Your task to perform on an android device: Go to internet settings Image 0: 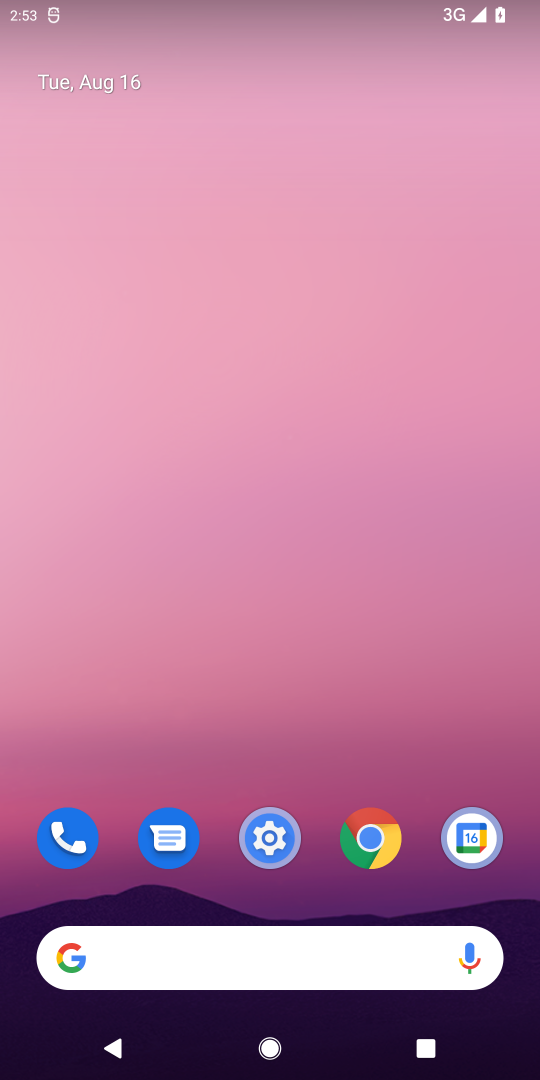
Step 0: press home button
Your task to perform on an android device: Go to internet settings Image 1: 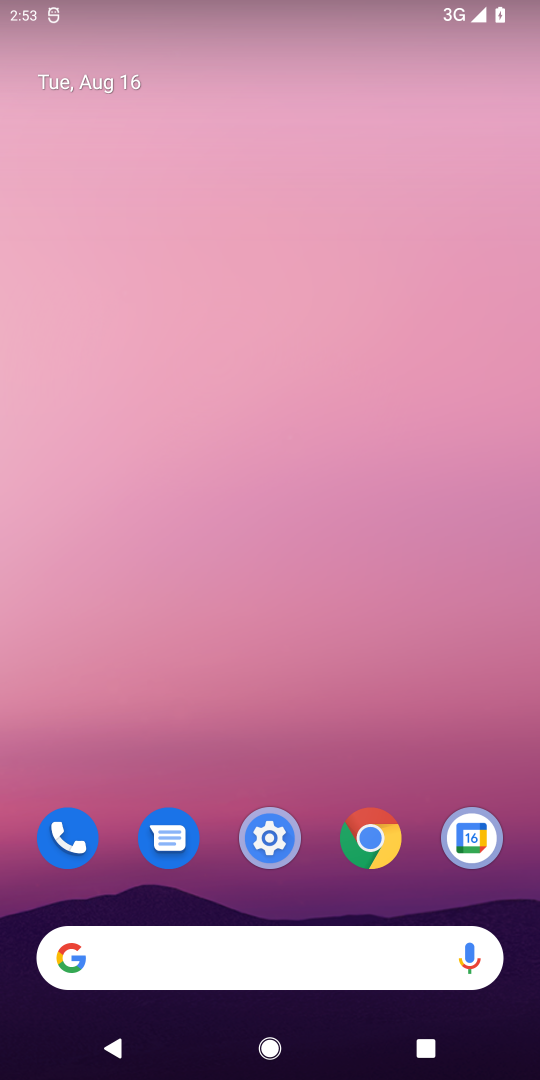
Step 1: click (275, 849)
Your task to perform on an android device: Go to internet settings Image 2: 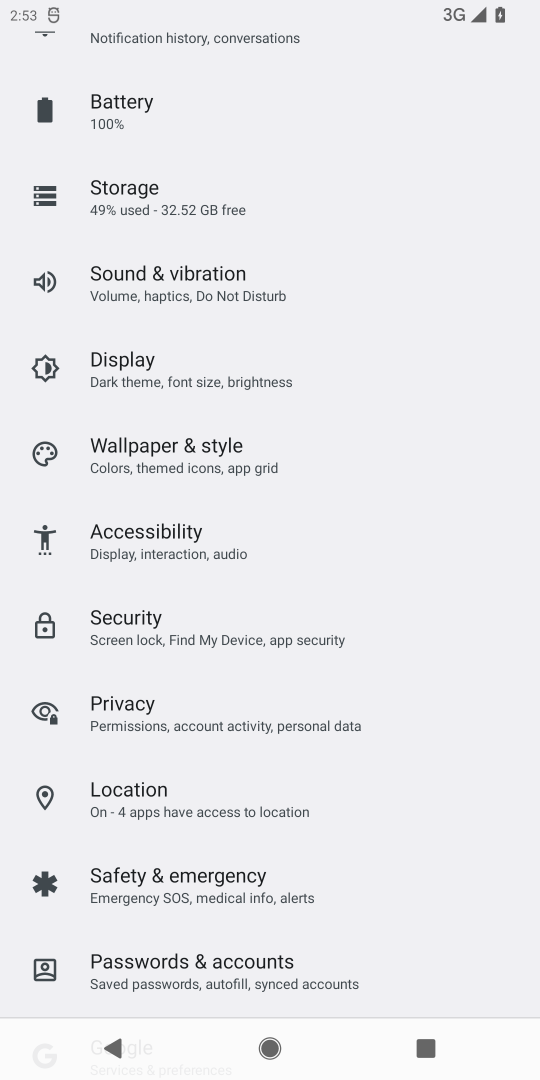
Step 2: drag from (140, 144) to (144, 878)
Your task to perform on an android device: Go to internet settings Image 3: 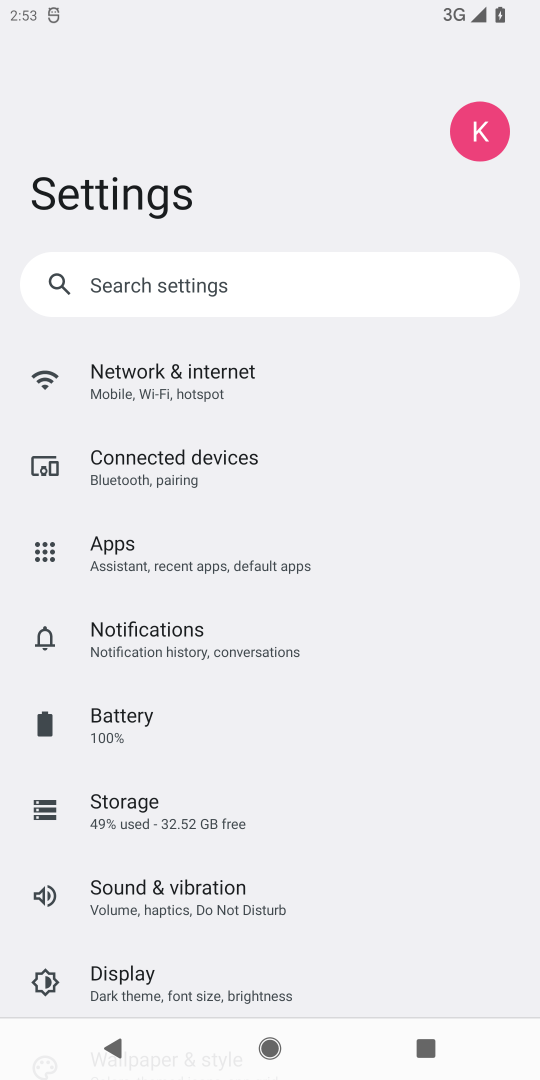
Step 3: click (234, 386)
Your task to perform on an android device: Go to internet settings Image 4: 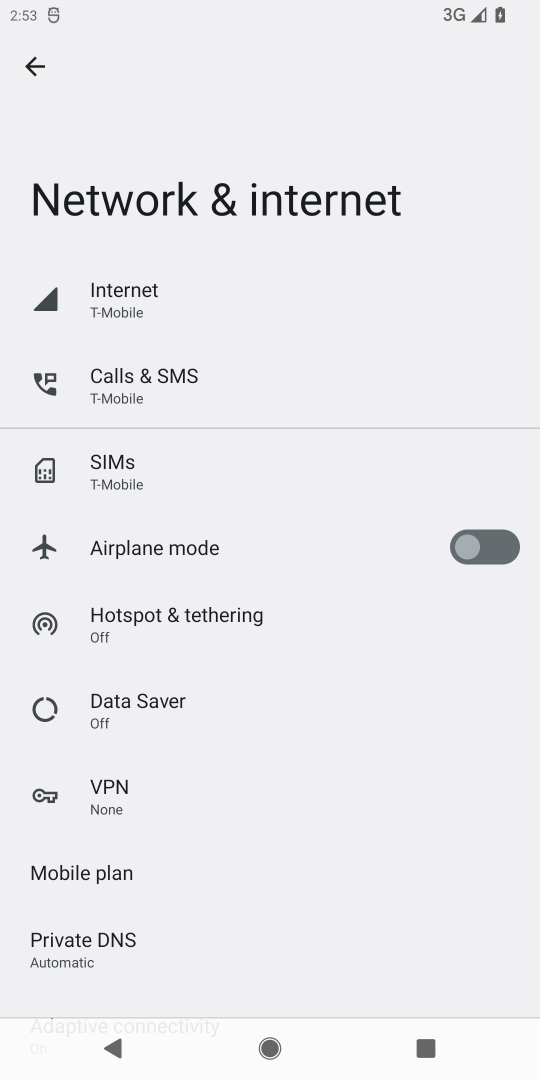
Step 4: task complete